Your task to perform on an android device: all mails in gmail Image 0: 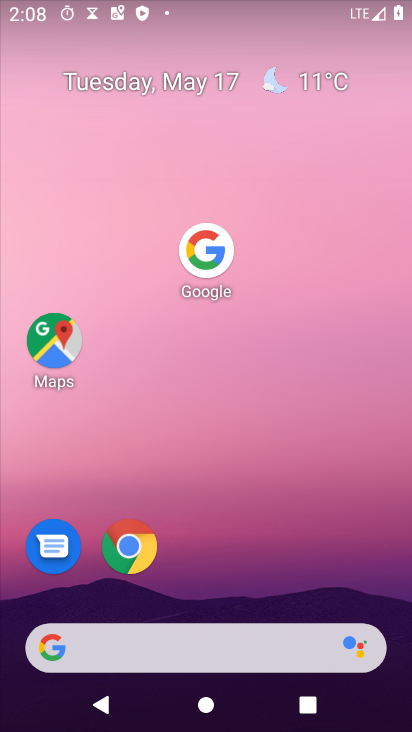
Step 0: press home button
Your task to perform on an android device: all mails in gmail Image 1: 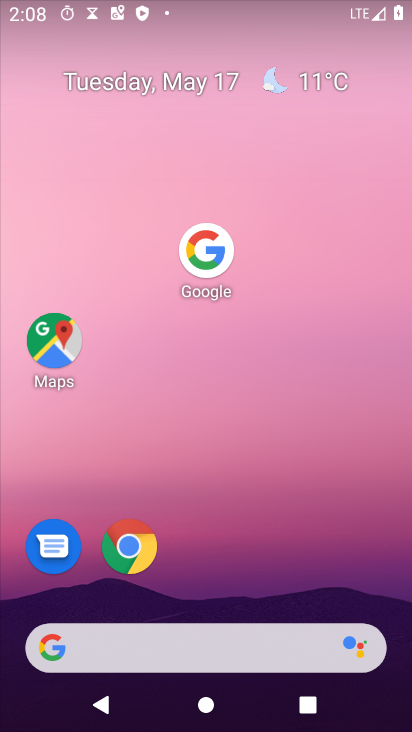
Step 1: drag from (158, 651) to (297, 92)
Your task to perform on an android device: all mails in gmail Image 2: 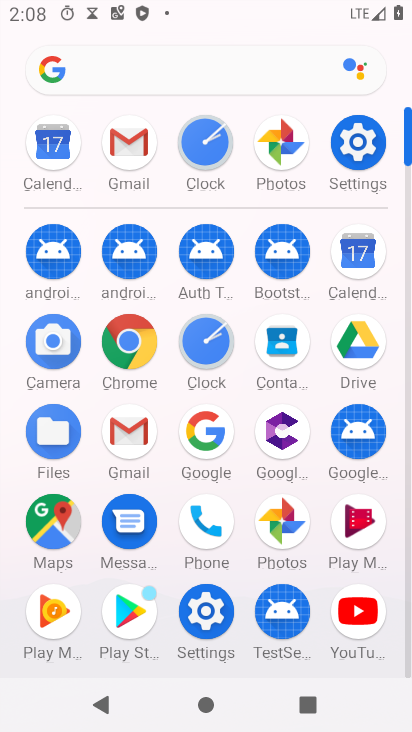
Step 2: click (130, 154)
Your task to perform on an android device: all mails in gmail Image 3: 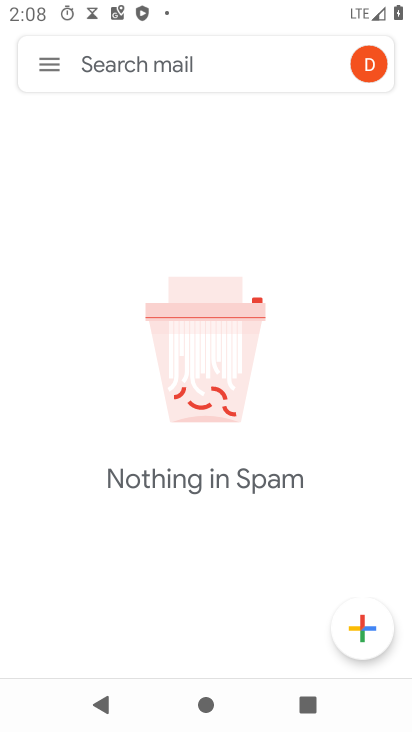
Step 3: click (45, 57)
Your task to perform on an android device: all mails in gmail Image 4: 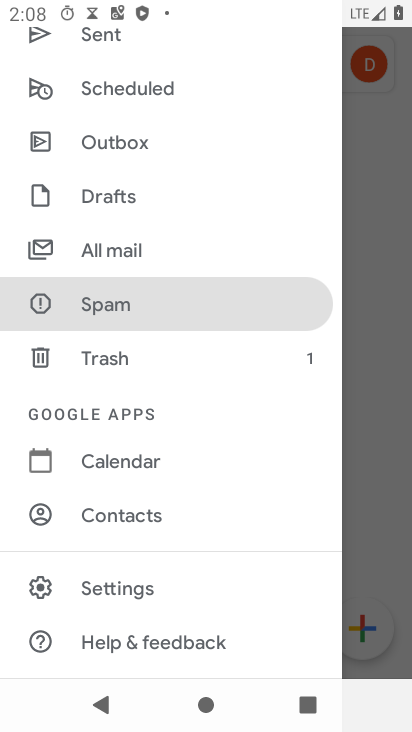
Step 4: click (134, 247)
Your task to perform on an android device: all mails in gmail Image 5: 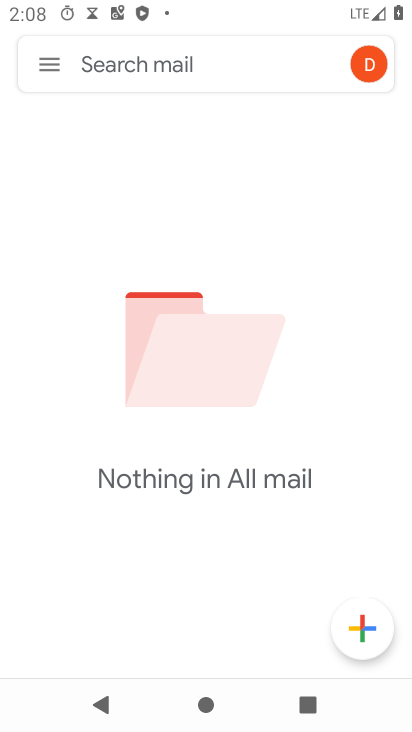
Step 5: task complete